Your task to perform on an android device: check google app version Image 0: 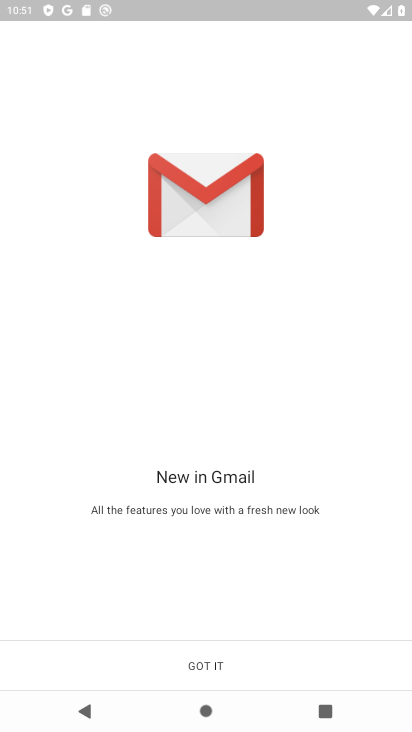
Step 0: press home button
Your task to perform on an android device: check google app version Image 1: 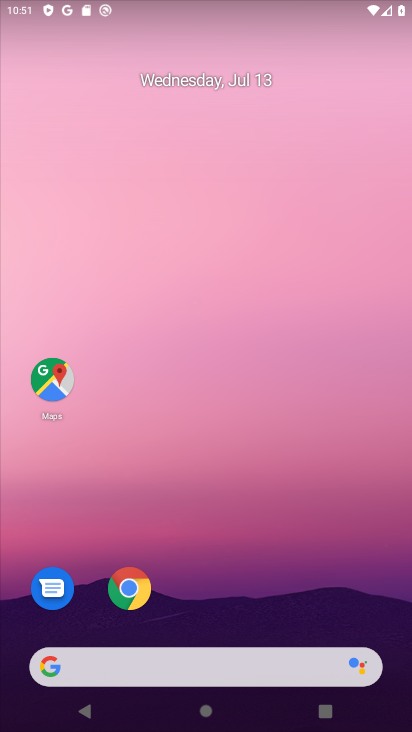
Step 1: drag from (240, 678) to (327, 212)
Your task to perform on an android device: check google app version Image 2: 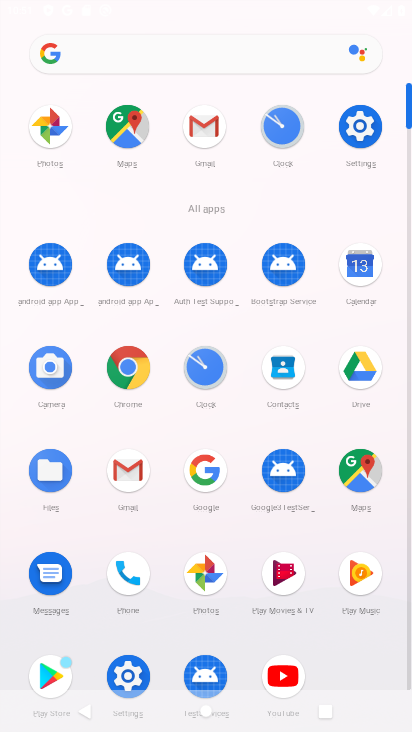
Step 2: click (124, 676)
Your task to perform on an android device: check google app version Image 3: 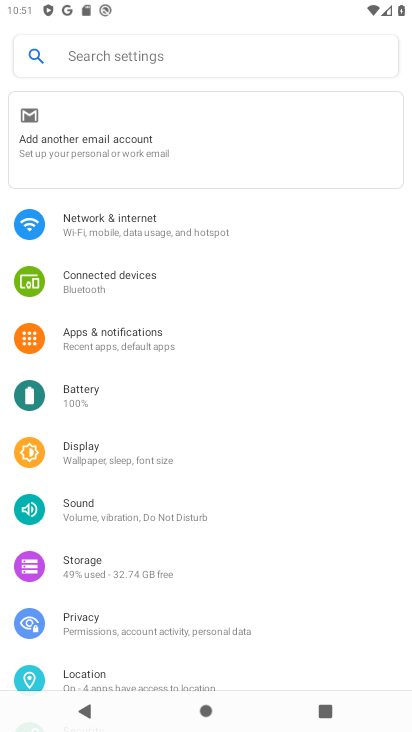
Step 3: click (134, 334)
Your task to perform on an android device: check google app version Image 4: 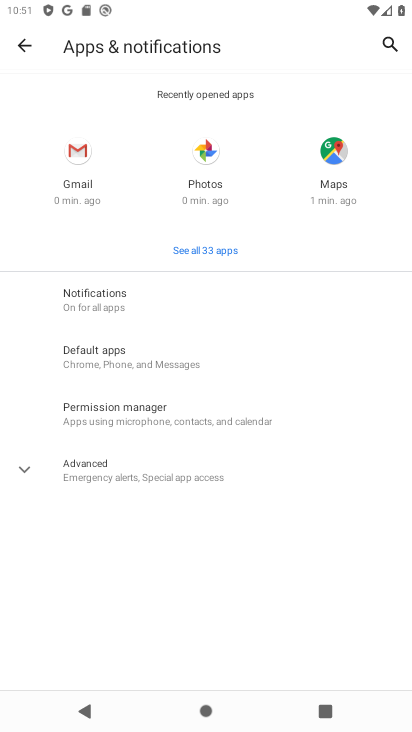
Step 4: click (236, 250)
Your task to perform on an android device: check google app version Image 5: 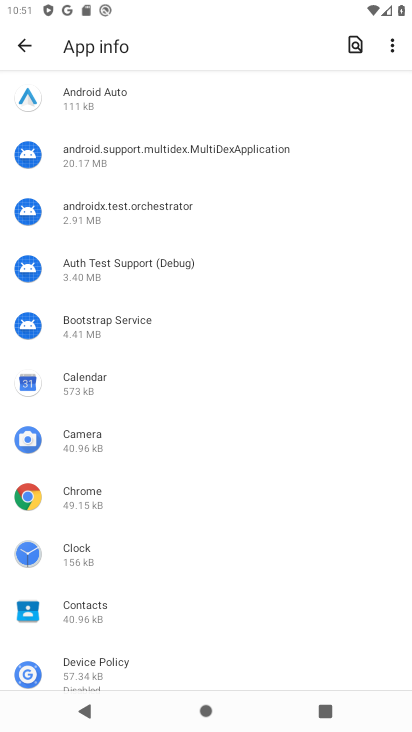
Step 5: drag from (207, 493) to (256, 174)
Your task to perform on an android device: check google app version Image 6: 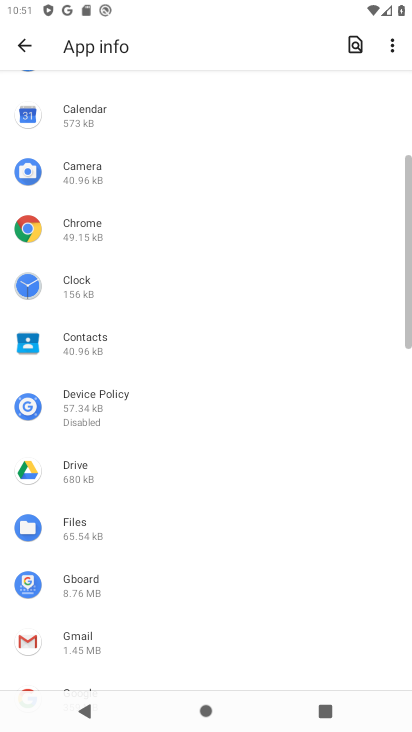
Step 6: drag from (152, 580) to (277, 232)
Your task to perform on an android device: check google app version Image 7: 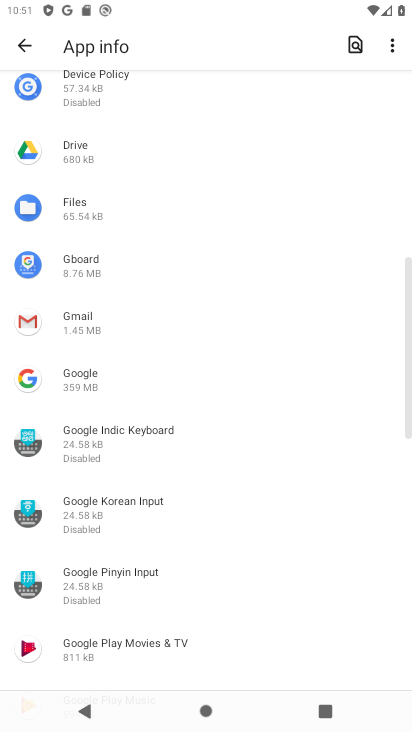
Step 7: click (128, 389)
Your task to perform on an android device: check google app version Image 8: 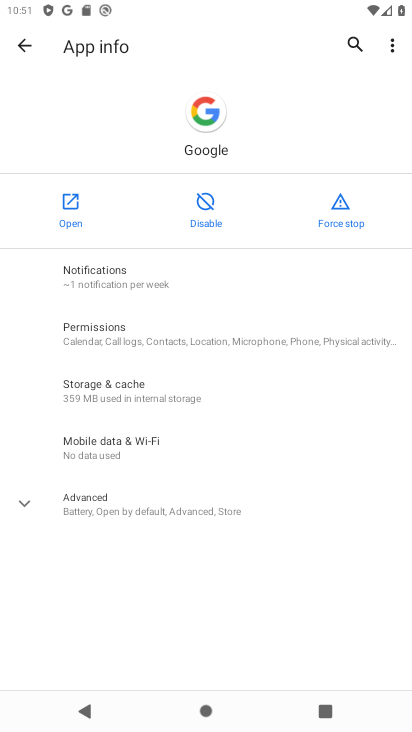
Step 8: click (163, 505)
Your task to perform on an android device: check google app version Image 9: 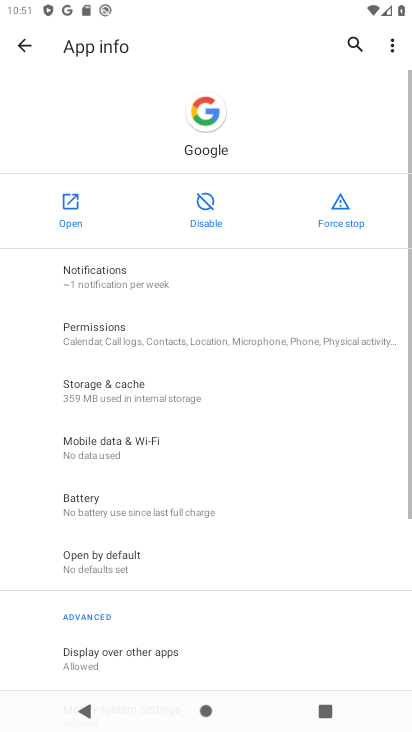
Step 9: task complete